Your task to perform on an android device: open the mobile data screen to see how much data has been used Image 0: 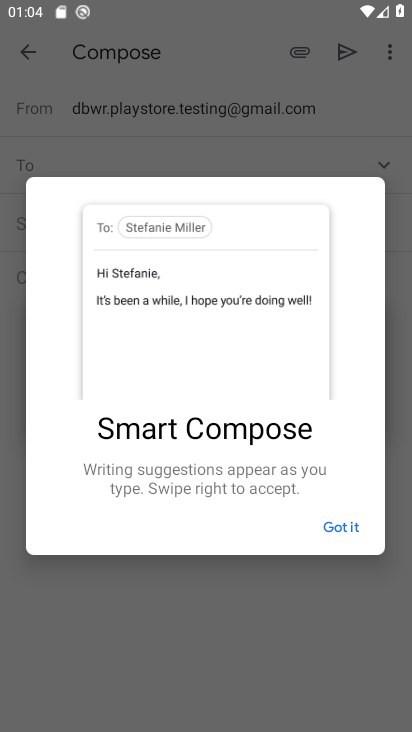
Step 0: press home button
Your task to perform on an android device: open the mobile data screen to see how much data has been used Image 1: 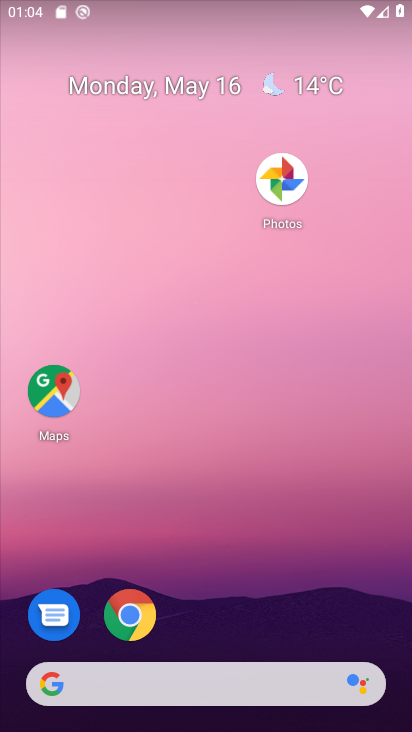
Step 1: drag from (295, 634) to (372, 191)
Your task to perform on an android device: open the mobile data screen to see how much data has been used Image 2: 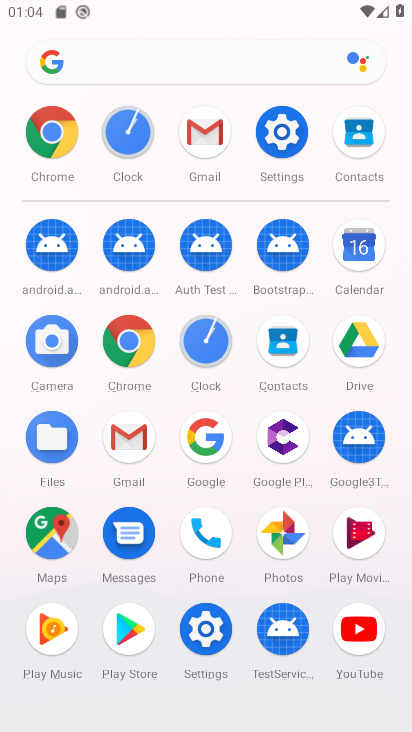
Step 2: click (284, 162)
Your task to perform on an android device: open the mobile data screen to see how much data has been used Image 3: 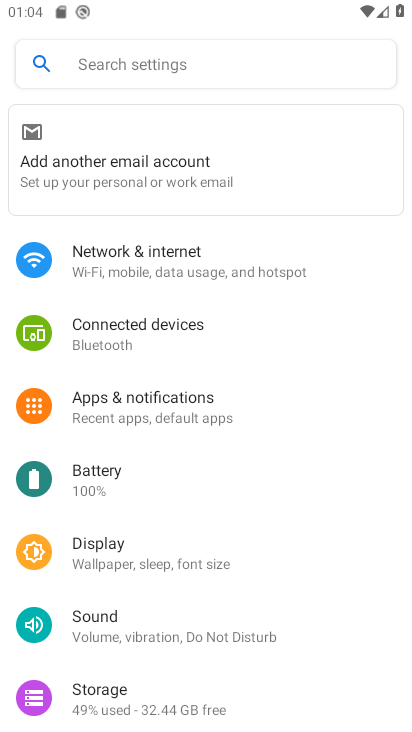
Step 3: click (126, 258)
Your task to perform on an android device: open the mobile data screen to see how much data has been used Image 4: 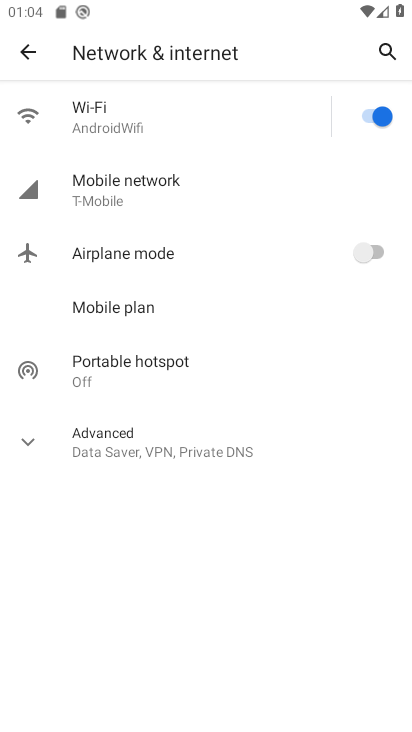
Step 4: click (119, 193)
Your task to perform on an android device: open the mobile data screen to see how much data has been used Image 5: 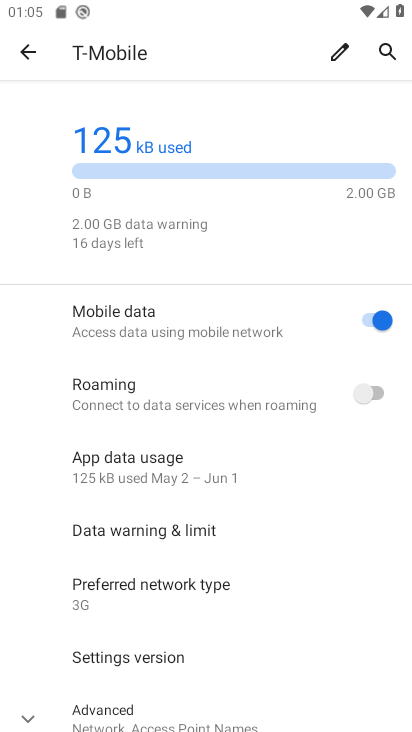
Step 5: task complete